Your task to perform on an android device: Open the calendar and show me this week's events Image 0: 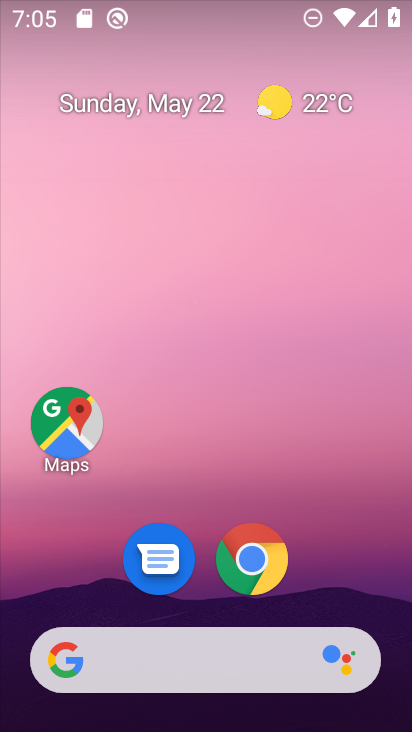
Step 0: drag from (260, 677) to (185, 138)
Your task to perform on an android device: Open the calendar and show me this week's events Image 1: 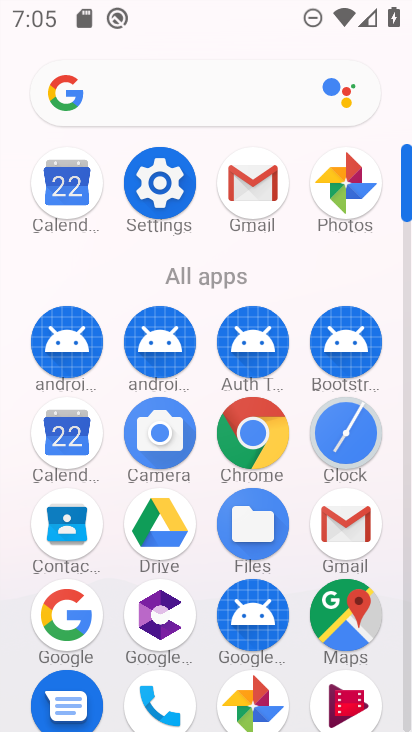
Step 1: click (78, 451)
Your task to perform on an android device: Open the calendar and show me this week's events Image 2: 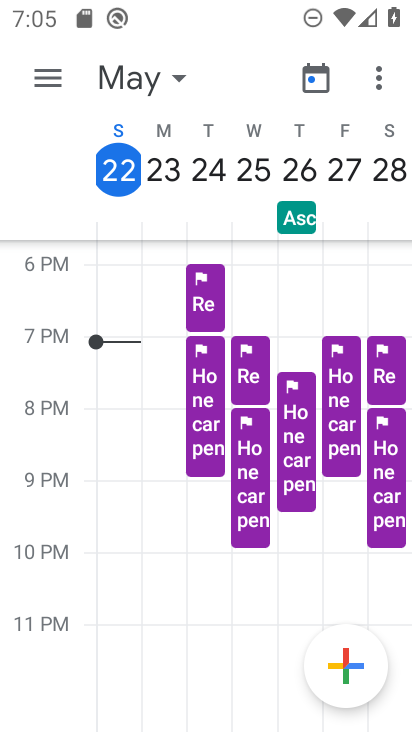
Step 2: task complete